Your task to perform on an android device: delete location history Image 0: 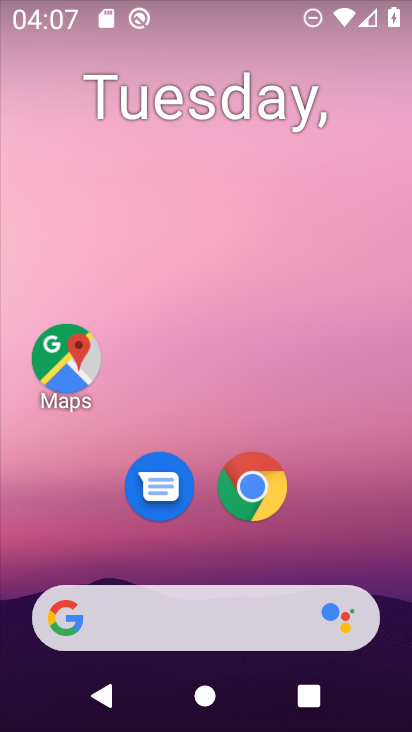
Step 0: click (66, 349)
Your task to perform on an android device: delete location history Image 1: 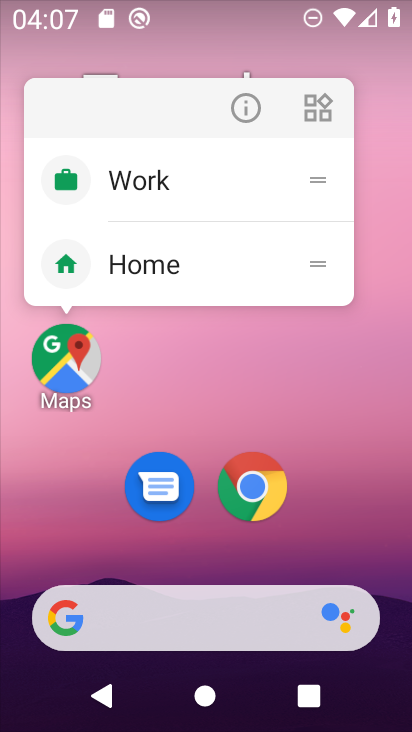
Step 1: click (66, 349)
Your task to perform on an android device: delete location history Image 2: 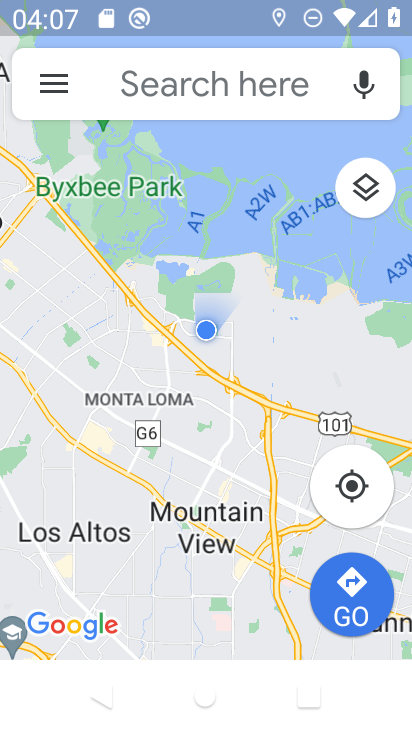
Step 2: click (62, 82)
Your task to perform on an android device: delete location history Image 3: 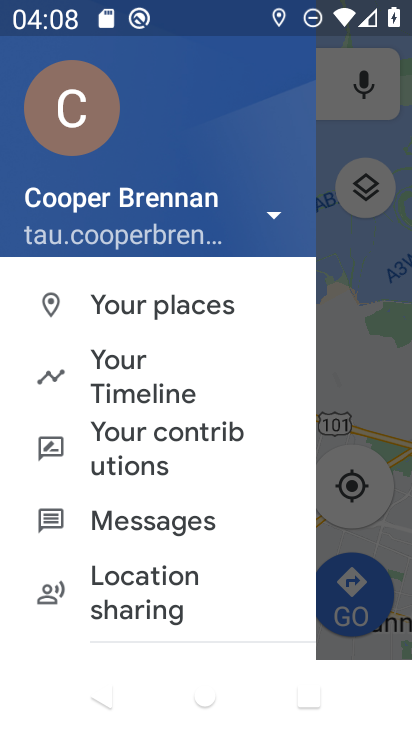
Step 3: click (143, 388)
Your task to perform on an android device: delete location history Image 4: 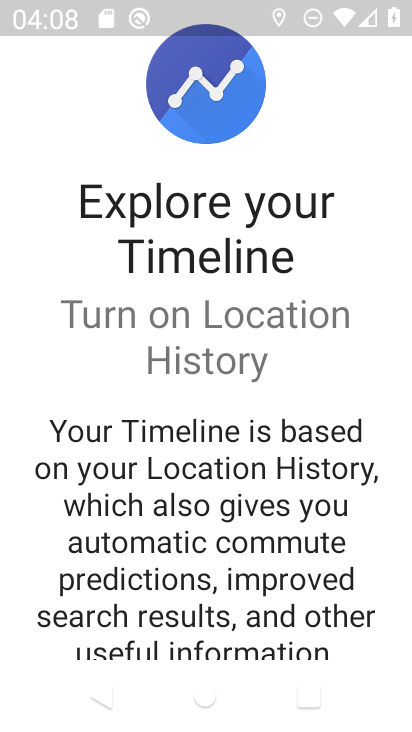
Step 4: drag from (183, 582) to (255, 25)
Your task to perform on an android device: delete location history Image 5: 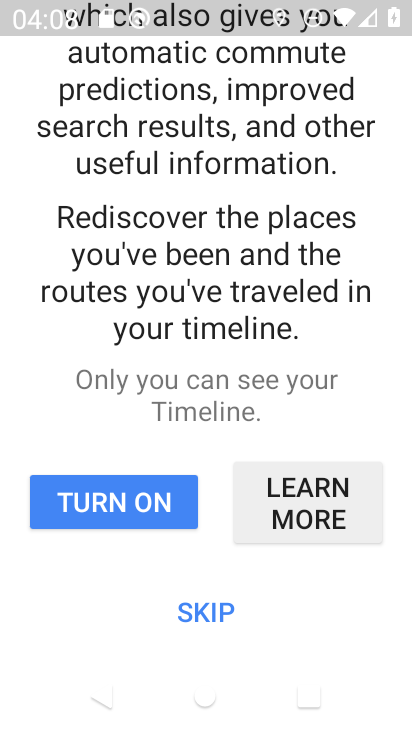
Step 5: click (199, 611)
Your task to perform on an android device: delete location history Image 6: 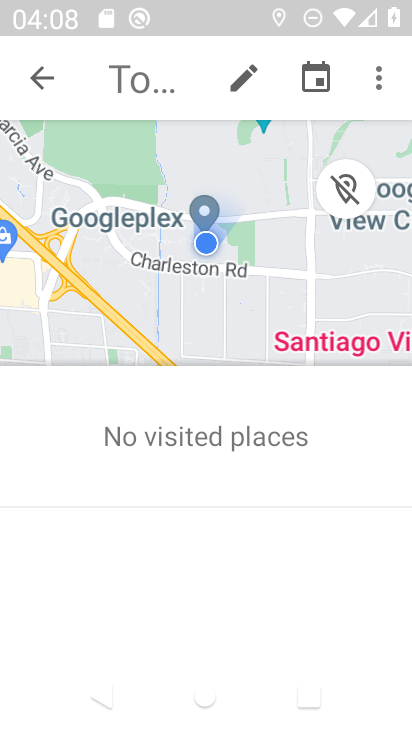
Step 6: click (376, 84)
Your task to perform on an android device: delete location history Image 7: 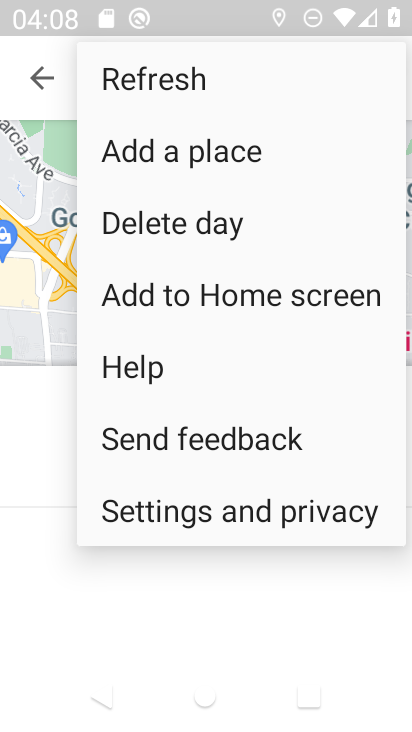
Step 7: click (177, 515)
Your task to perform on an android device: delete location history Image 8: 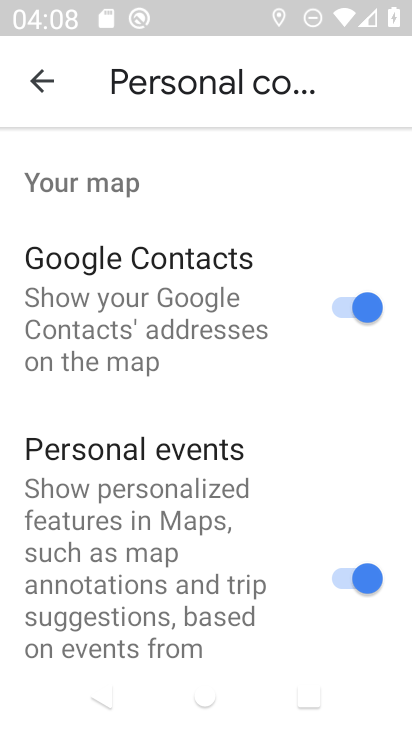
Step 8: drag from (154, 582) to (250, 51)
Your task to perform on an android device: delete location history Image 9: 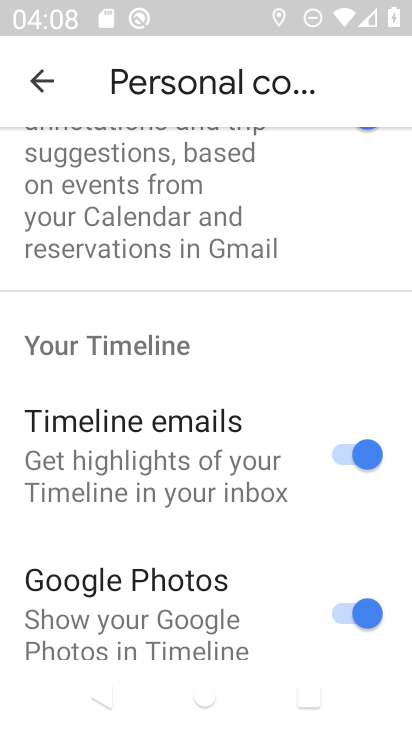
Step 9: drag from (152, 633) to (280, 50)
Your task to perform on an android device: delete location history Image 10: 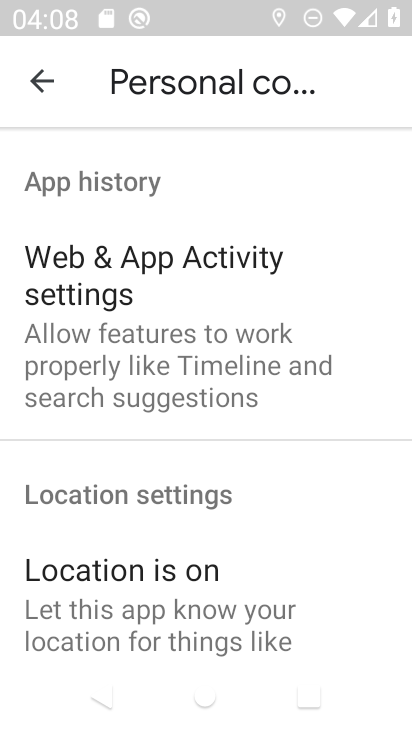
Step 10: drag from (213, 584) to (285, 35)
Your task to perform on an android device: delete location history Image 11: 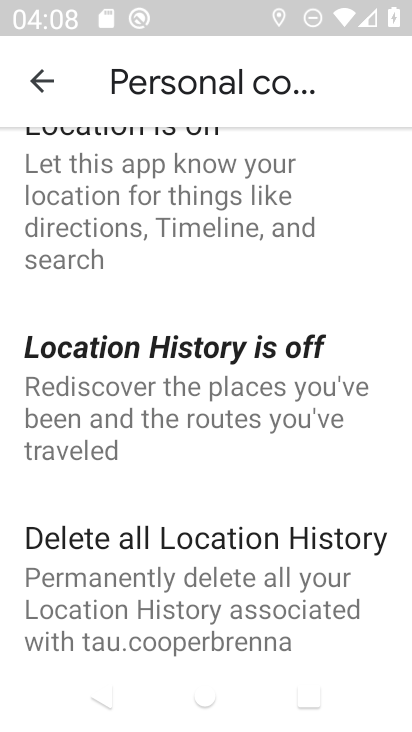
Step 11: click (221, 573)
Your task to perform on an android device: delete location history Image 12: 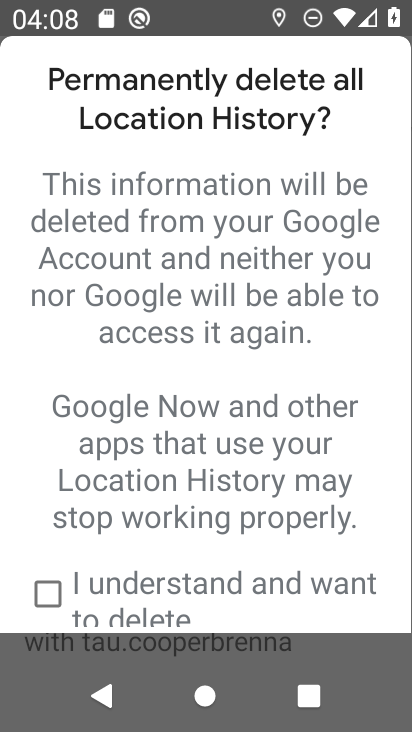
Step 12: drag from (187, 515) to (267, 37)
Your task to perform on an android device: delete location history Image 13: 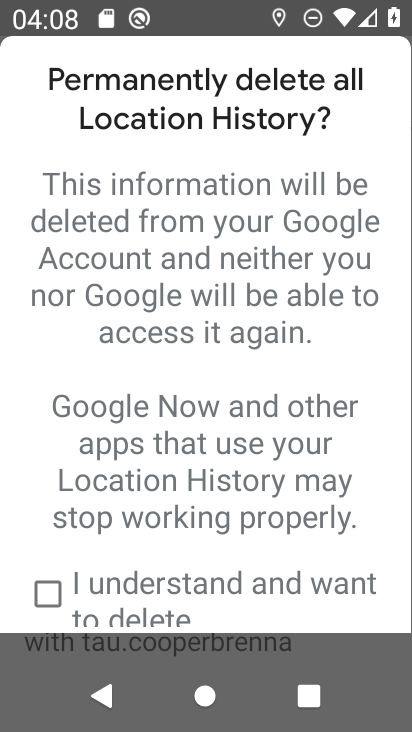
Step 13: click (41, 593)
Your task to perform on an android device: delete location history Image 14: 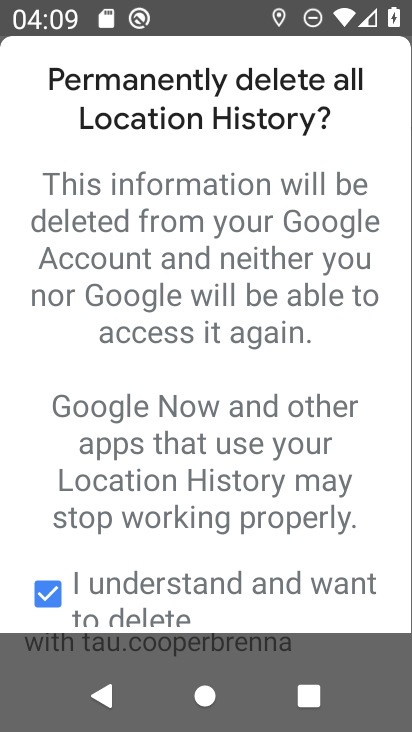
Step 14: task complete